Your task to perform on an android device: open device folders in google photos Image 0: 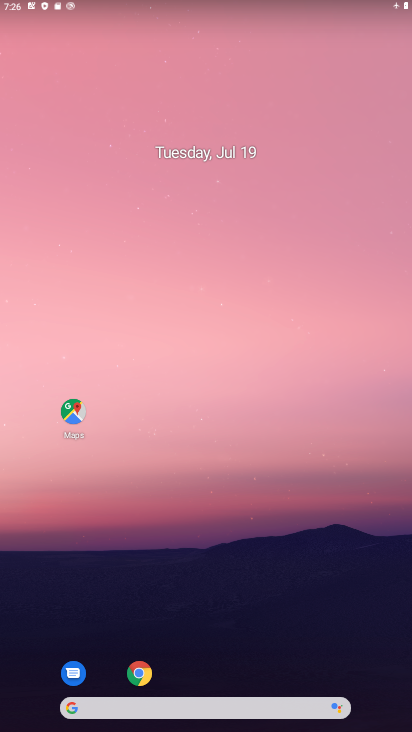
Step 0: drag from (380, 667) to (238, 2)
Your task to perform on an android device: open device folders in google photos Image 1: 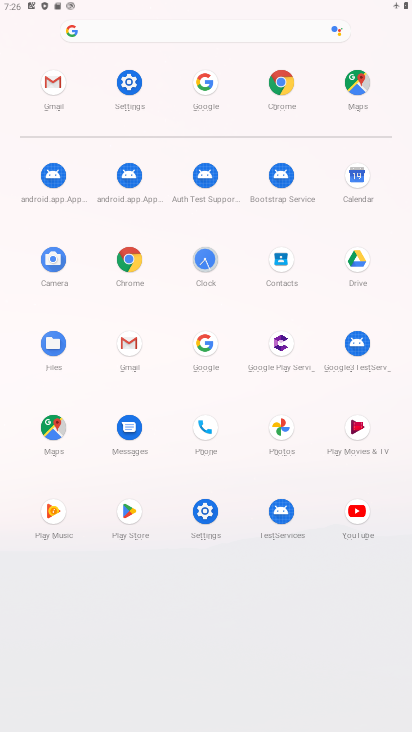
Step 1: click (283, 422)
Your task to perform on an android device: open device folders in google photos Image 2: 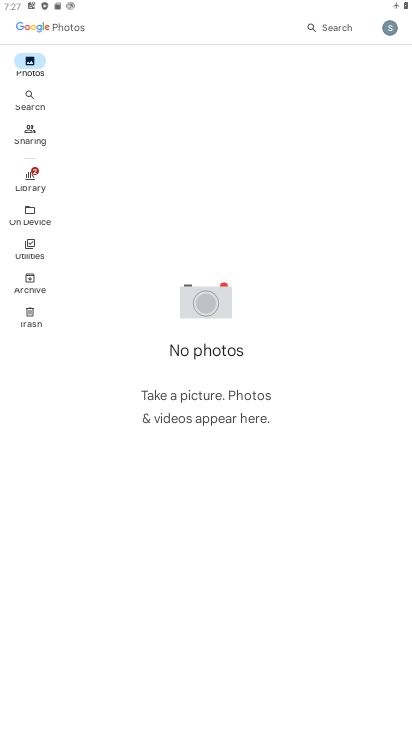
Step 2: task complete